Your task to perform on an android device: Go to ESPN.com Image 0: 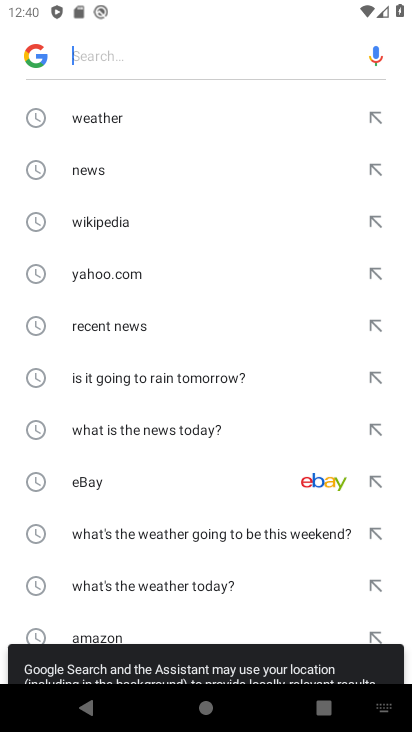
Step 0: press home button
Your task to perform on an android device: Go to ESPN.com Image 1: 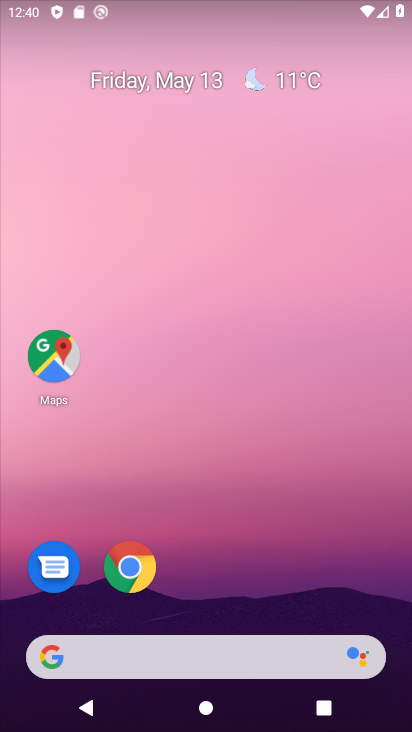
Step 1: drag from (230, 622) to (256, 240)
Your task to perform on an android device: Go to ESPN.com Image 2: 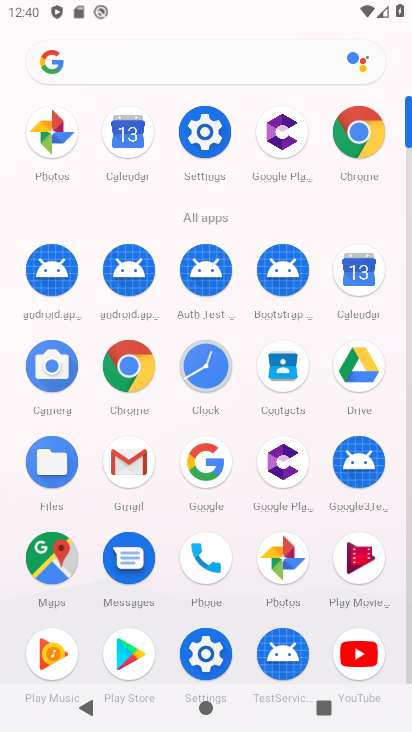
Step 2: click (363, 167)
Your task to perform on an android device: Go to ESPN.com Image 3: 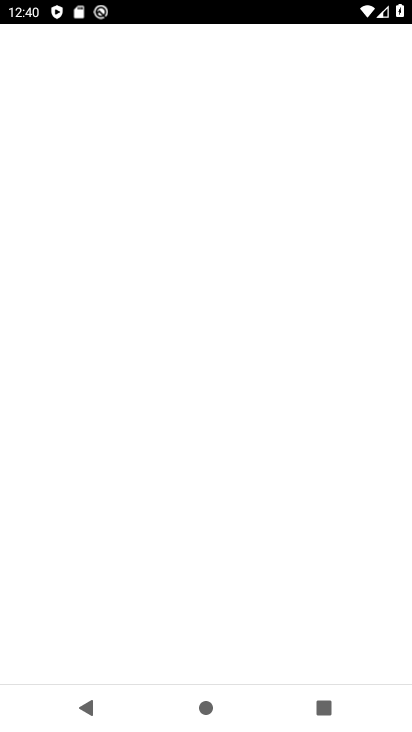
Step 3: click (363, 158)
Your task to perform on an android device: Go to ESPN.com Image 4: 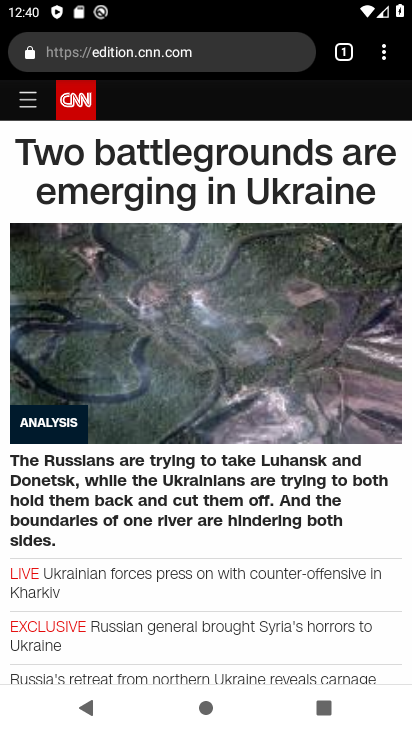
Step 4: press back button
Your task to perform on an android device: Go to ESPN.com Image 5: 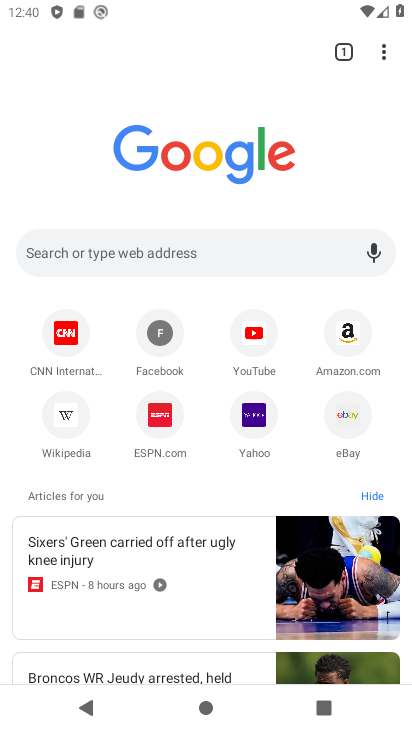
Step 5: click (164, 427)
Your task to perform on an android device: Go to ESPN.com Image 6: 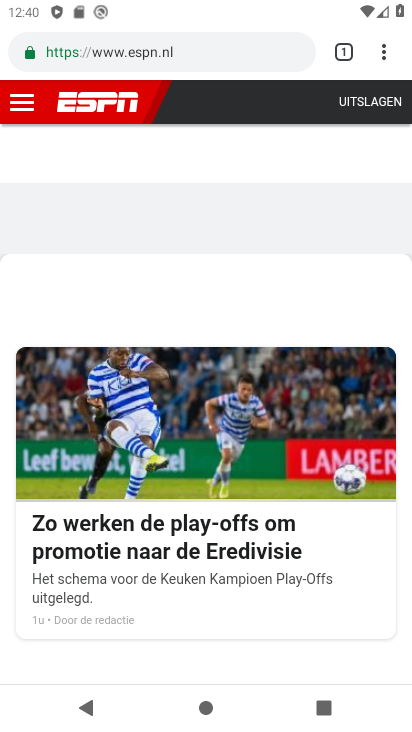
Step 6: task complete